Your task to perform on an android device: Open Google Chrome Image 0: 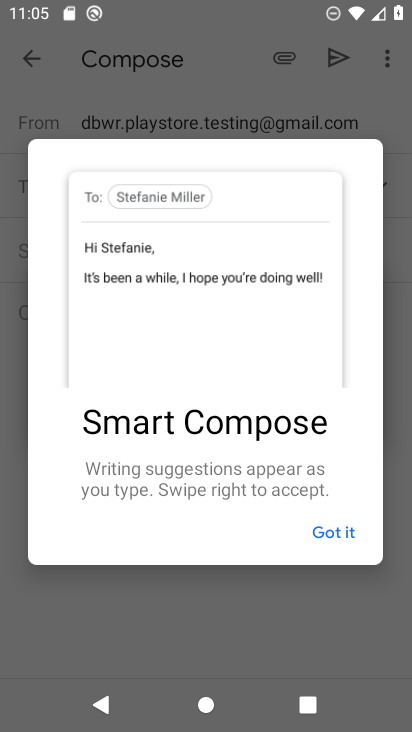
Step 0: press home button
Your task to perform on an android device: Open Google Chrome Image 1: 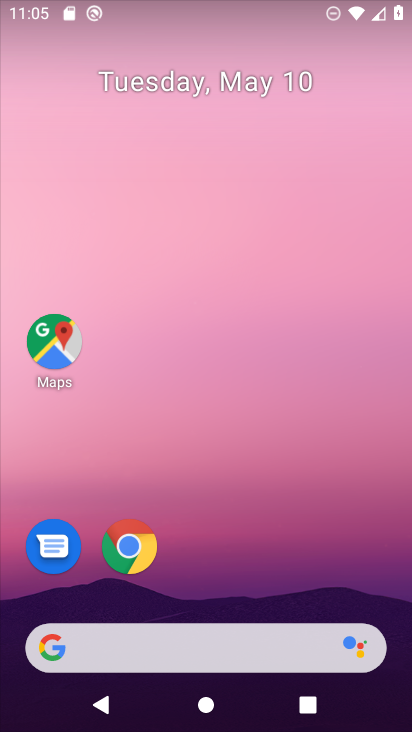
Step 1: drag from (288, 576) to (302, 182)
Your task to perform on an android device: Open Google Chrome Image 2: 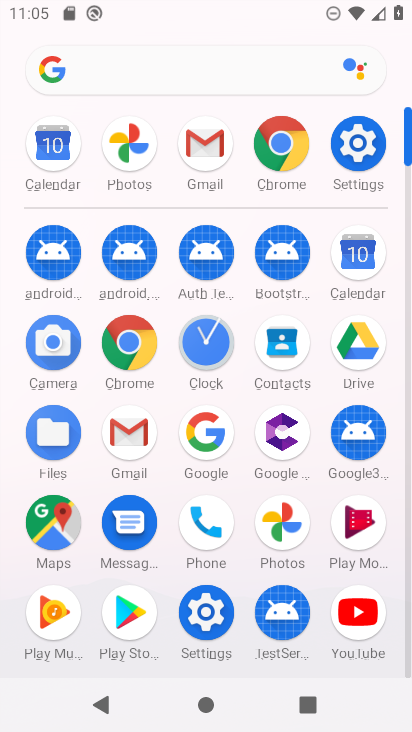
Step 2: click (291, 142)
Your task to perform on an android device: Open Google Chrome Image 3: 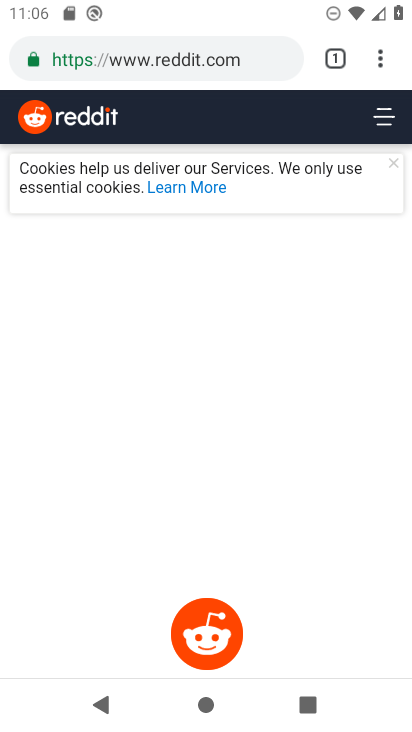
Step 3: task complete